Your task to perform on an android device: turn off wifi Image 0: 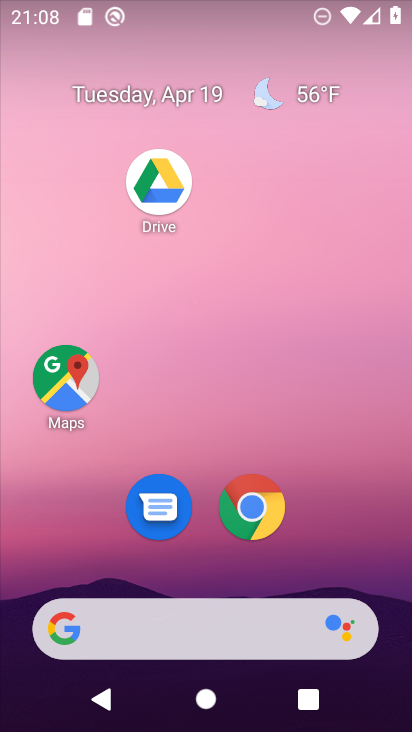
Step 0: drag from (340, 532) to (305, 125)
Your task to perform on an android device: turn off wifi Image 1: 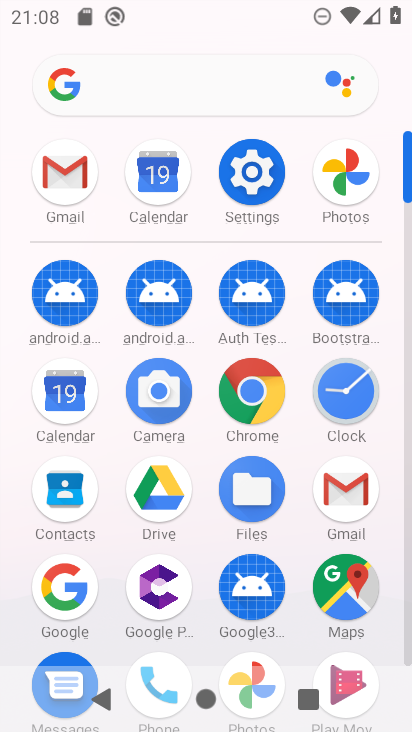
Step 1: click (260, 157)
Your task to perform on an android device: turn off wifi Image 2: 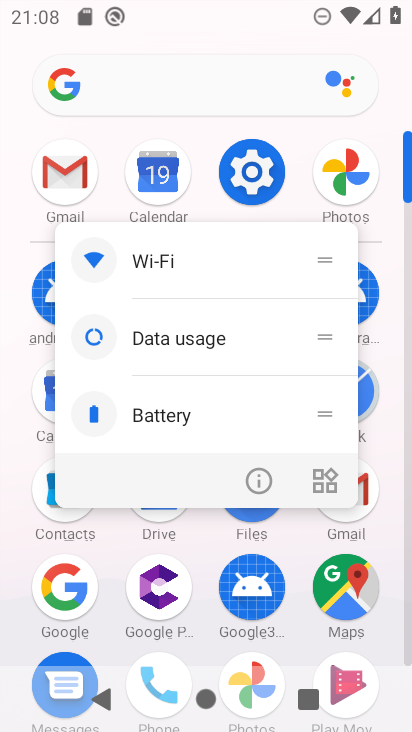
Step 2: click (260, 154)
Your task to perform on an android device: turn off wifi Image 3: 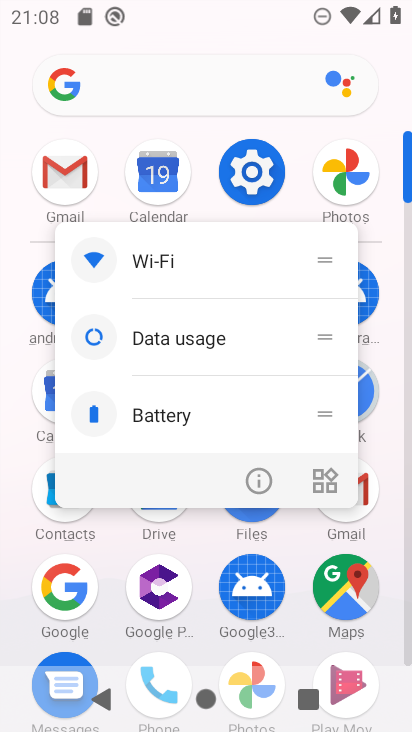
Step 3: click (260, 156)
Your task to perform on an android device: turn off wifi Image 4: 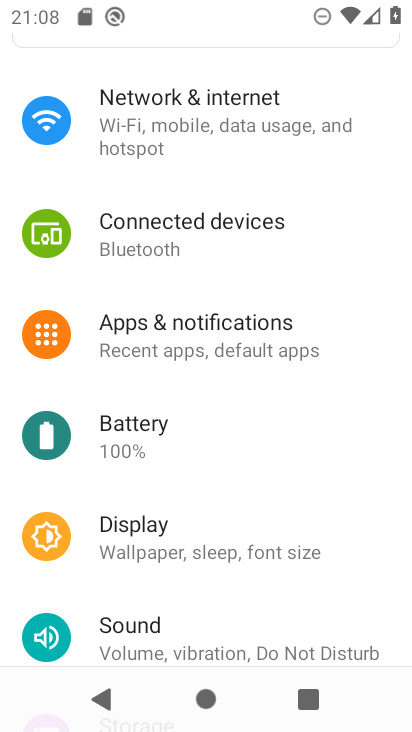
Step 4: click (253, 119)
Your task to perform on an android device: turn off wifi Image 5: 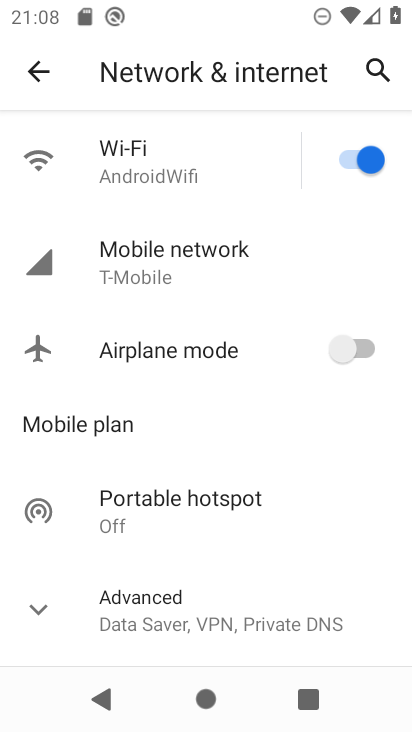
Step 5: click (342, 157)
Your task to perform on an android device: turn off wifi Image 6: 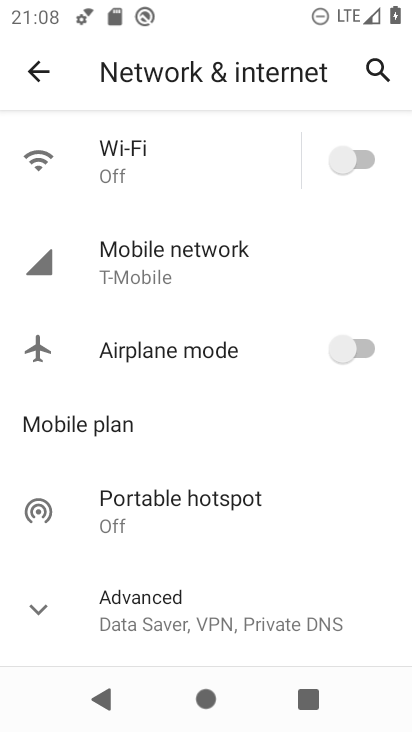
Step 6: task complete